Your task to perform on an android device: Open maps Image 0: 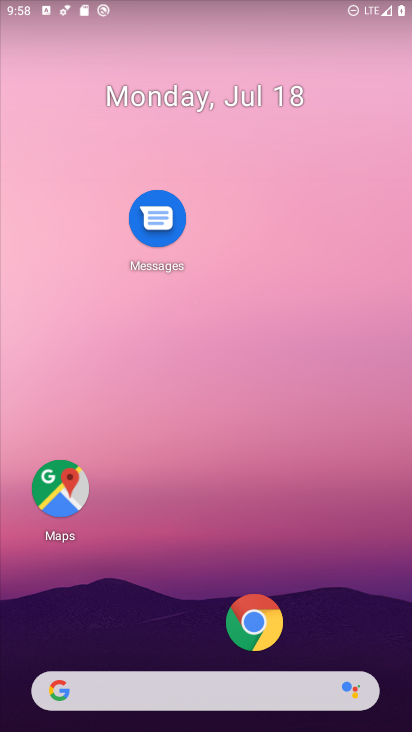
Step 0: drag from (185, 684) to (256, 107)
Your task to perform on an android device: Open maps Image 1: 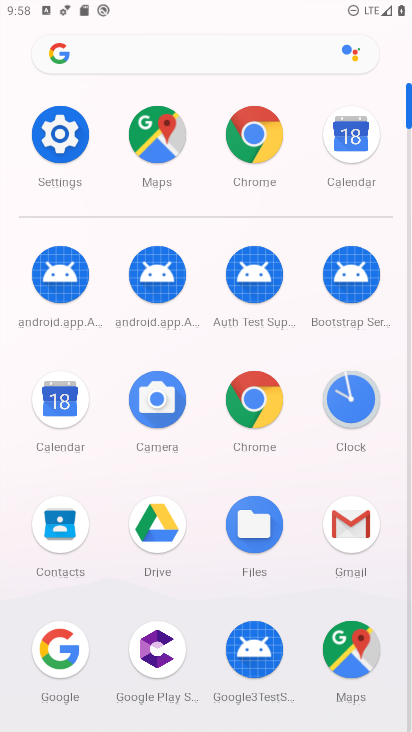
Step 1: click (365, 654)
Your task to perform on an android device: Open maps Image 2: 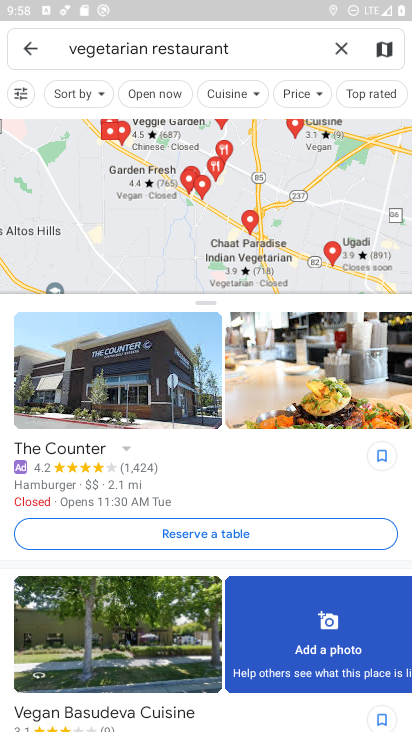
Step 2: task complete